Your task to perform on an android device: Go to sound settings Image 0: 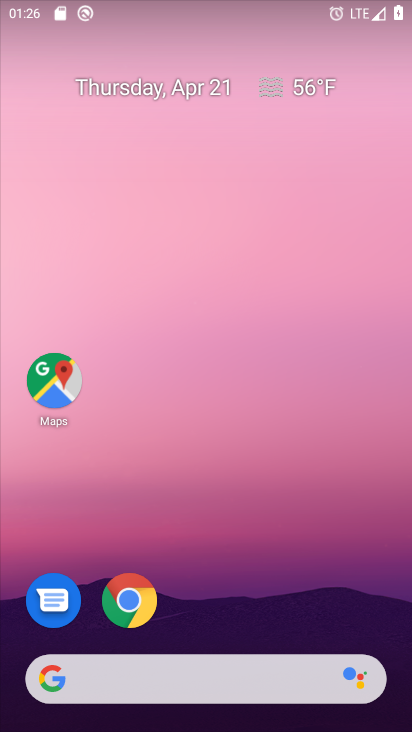
Step 0: drag from (311, 552) to (340, 112)
Your task to perform on an android device: Go to sound settings Image 1: 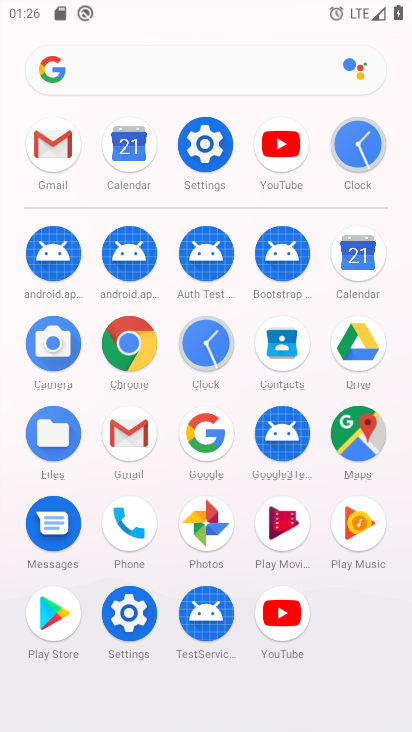
Step 1: click (207, 151)
Your task to perform on an android device: Go to sound settings Image 2: 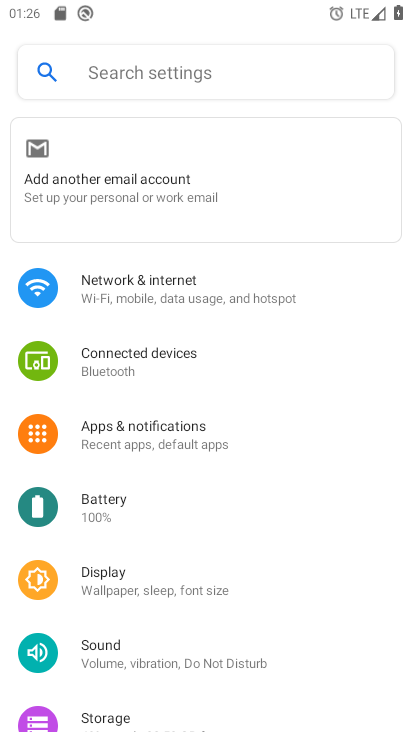
Step 2: click (156, 643)
Your task to perform on an android device: Go to sound settings Image 3: 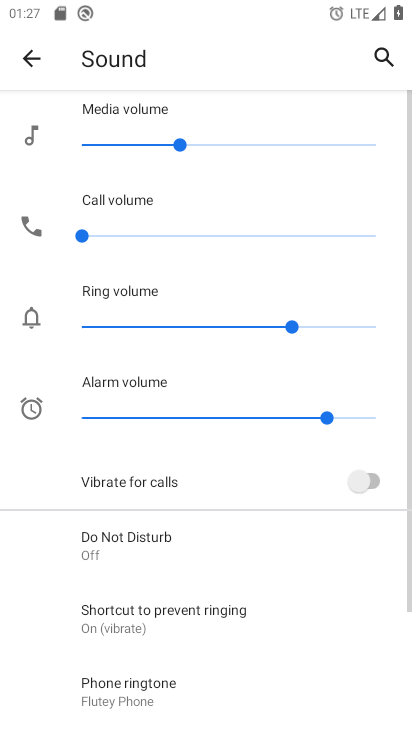
Step 3: task complete